Your task to perform on an android device: install app "PUBG MOBILE" Image 0: 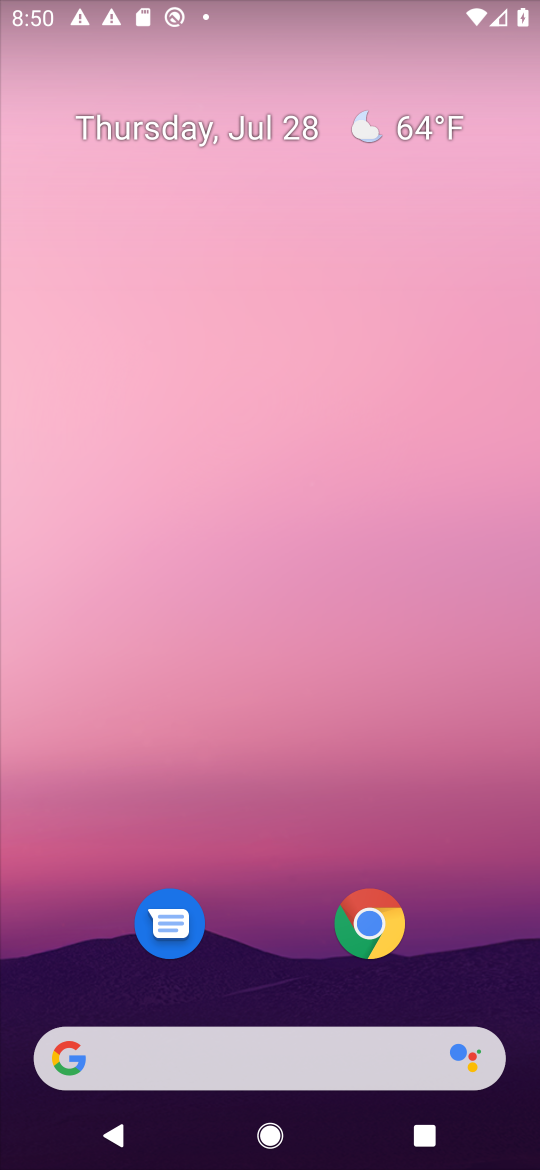
Step 0: press home button
Your task to perform on an android device: install app "PUBG MOBILE" Image 1: 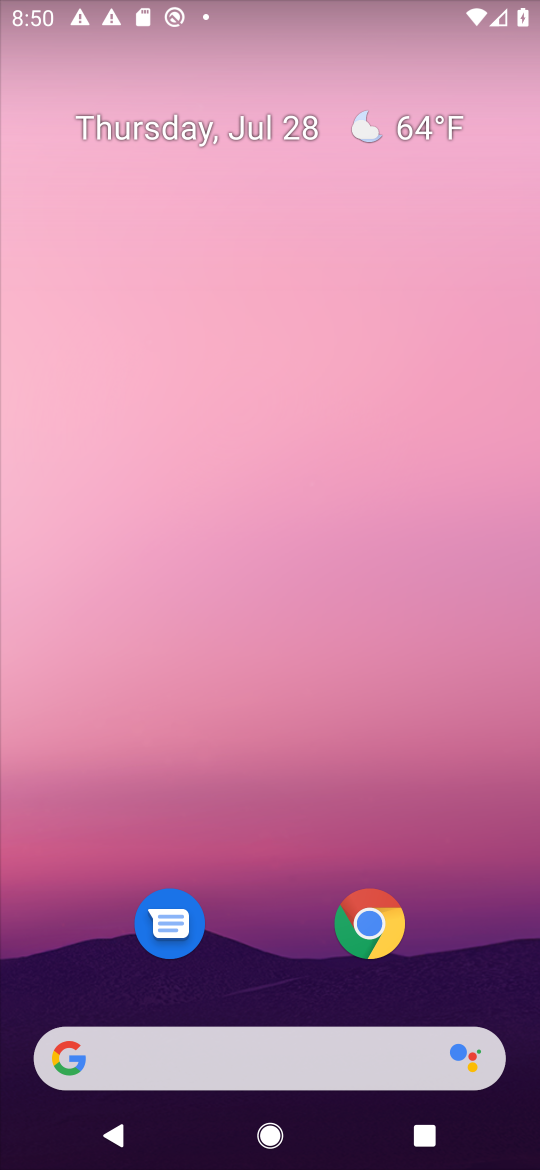
Step 1: drag from (432, 889) to (524, 80)
Your task to perform on an android device: install app "PUBG MOBILE" Image 2: 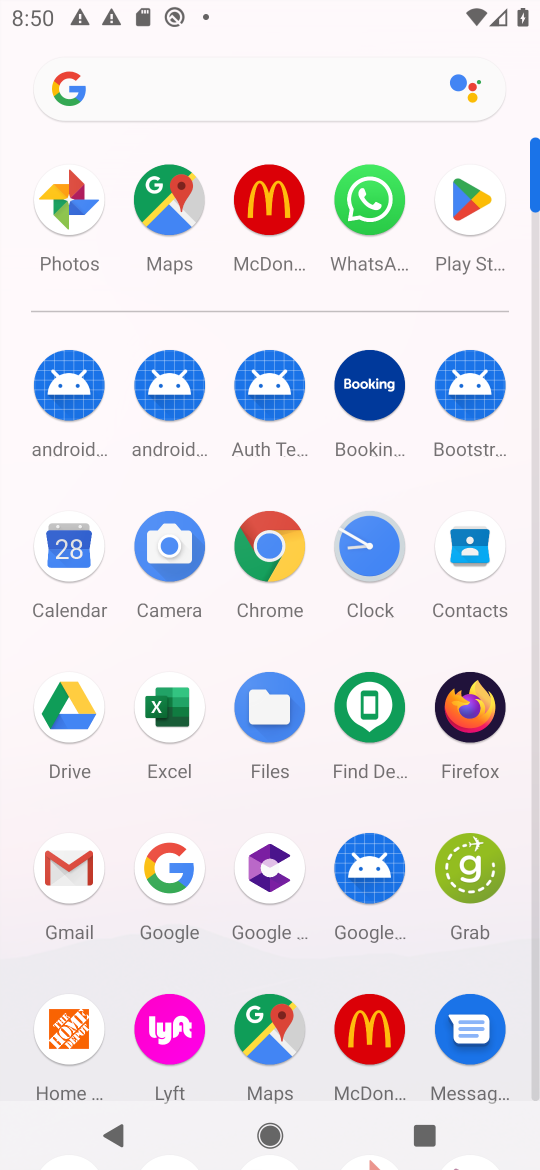
Step 2: click (455, 199)
Your task to perform on an android device: install app "PUBG MOBILE" Image 3: 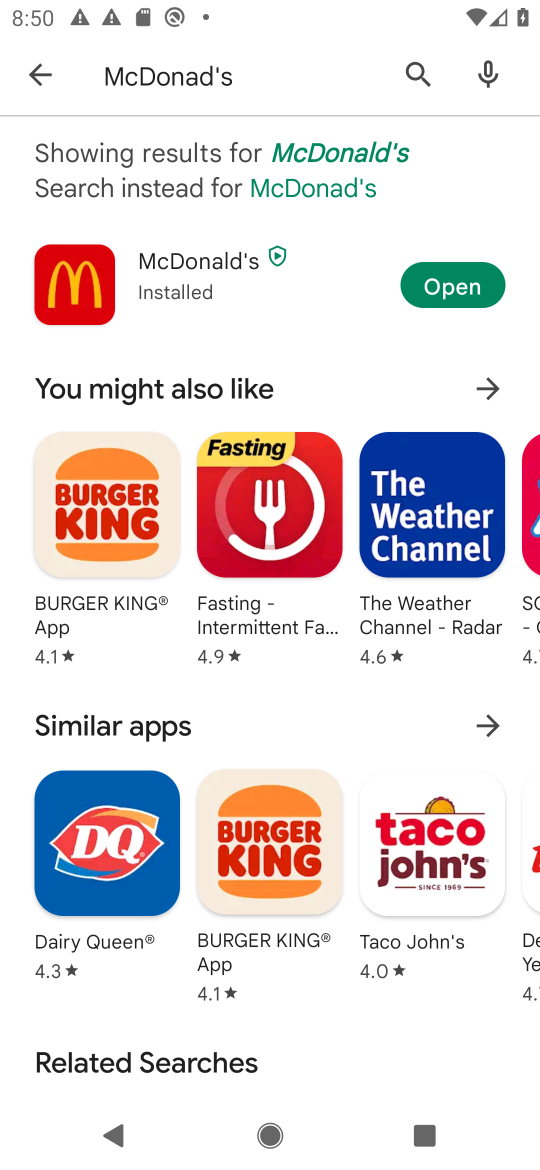
Step 3: click (274, 76)
Your task to perform on an android device: install app "PUBG MOBILE" Image 4: 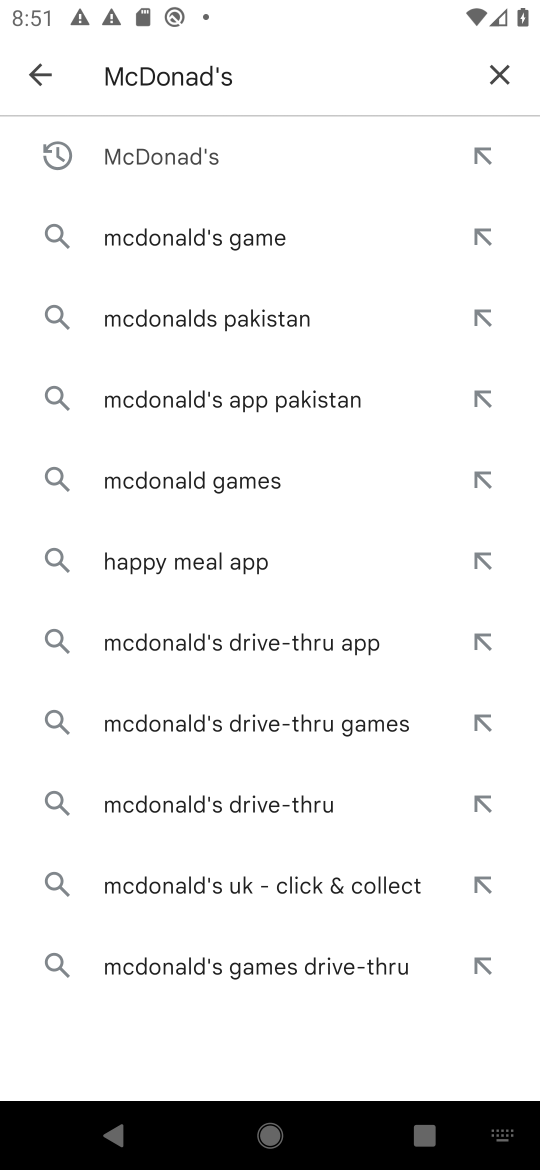
Step 4: click (505, 68)
Your task to perform on an android device: install app "PUBG MOBILE" Image 5: 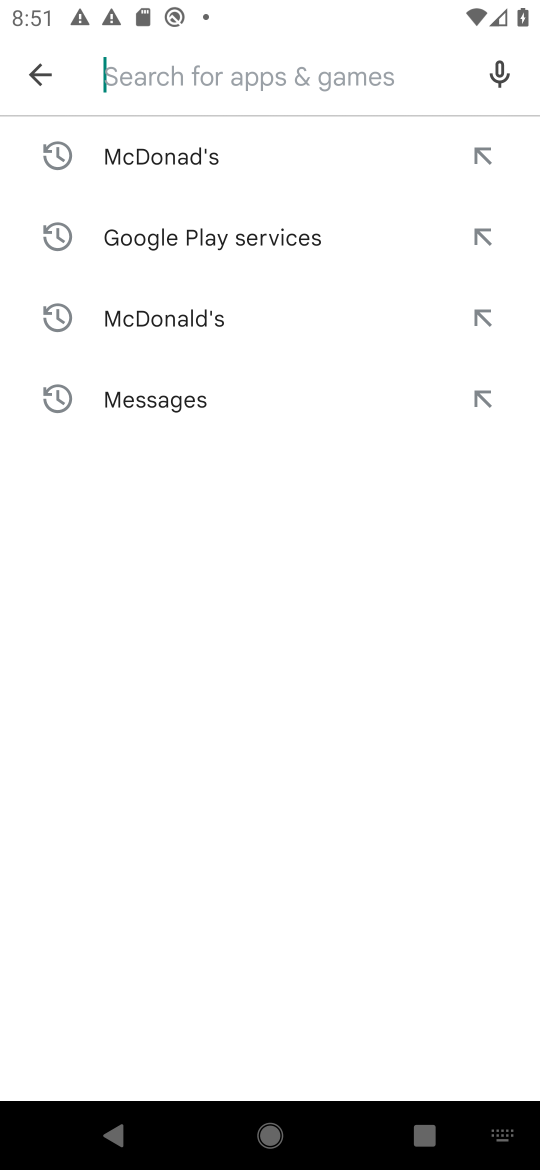
Step 5: type "PUBG MOBILE"
Your task to perform on an android device: install app "PUBG MOBILE" Image 6: 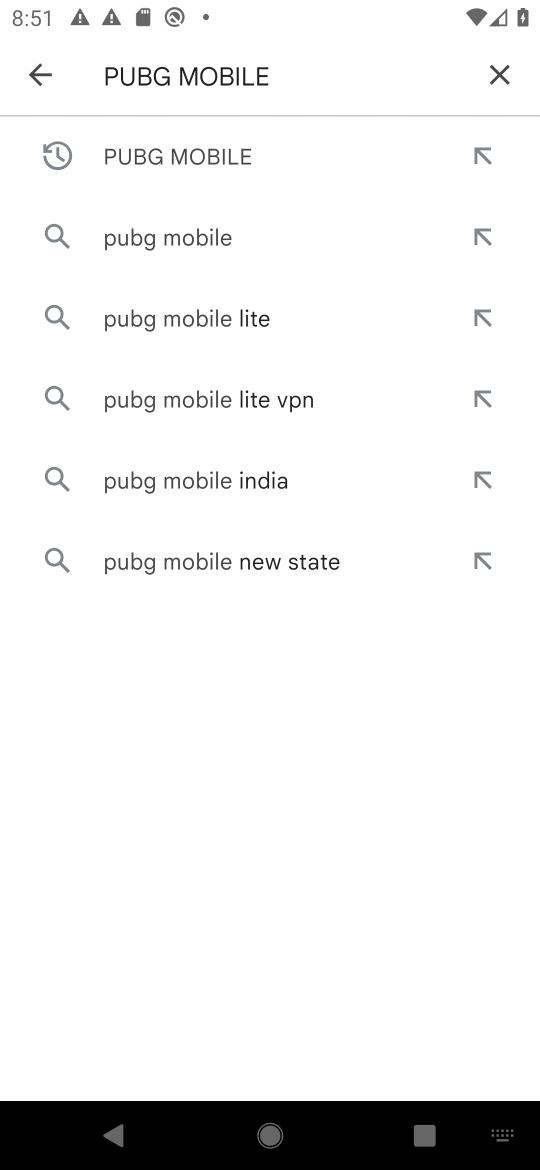
Step 6: press enter
Your task to perform on an android device: install app "PUBG MOBILE" Image 7: 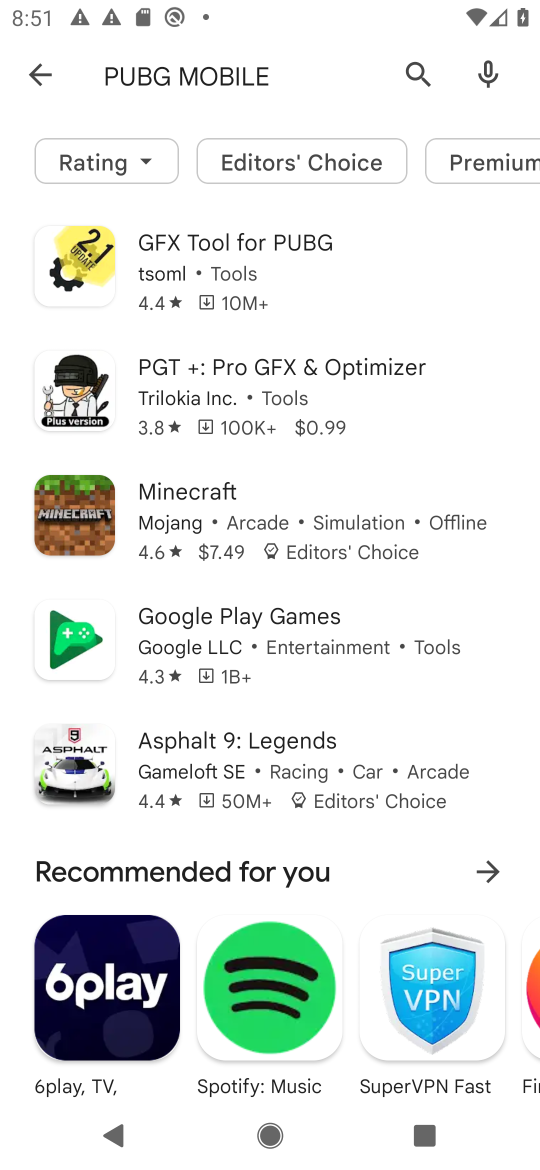
Step 7: task complete